Your task to perform on an android device: Open calendar and show me the first week of next month Image 0: 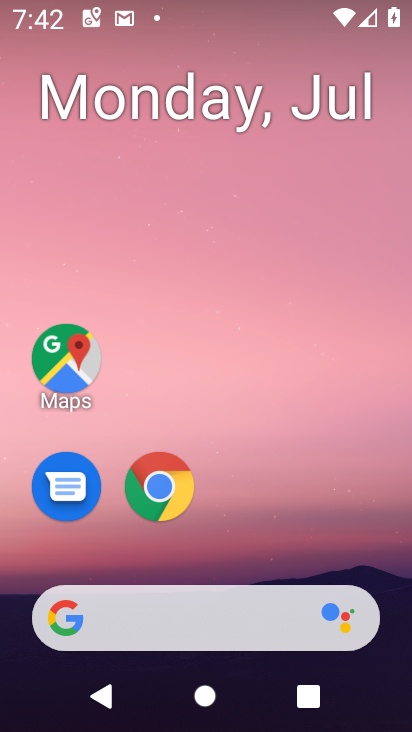
Step 0: drag from (361, 535) to (364, 127)
Your task to perform on an android device: Open calendar and show me the first week of next month Image 1: 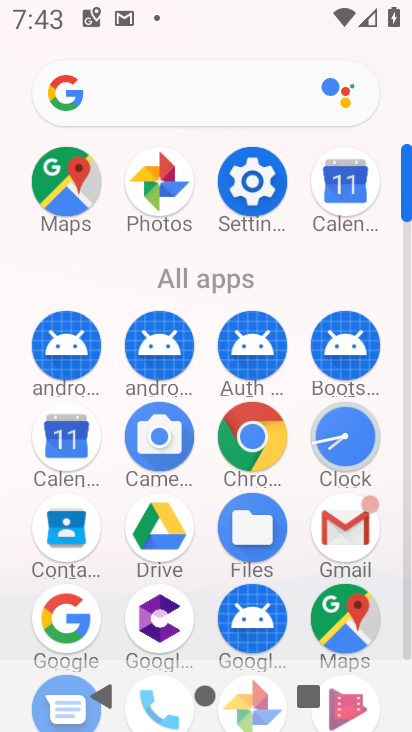
Step 1: click (363, 207)
Your task to perform on an android device: Open calendar and show me the first week of next month Image 2: 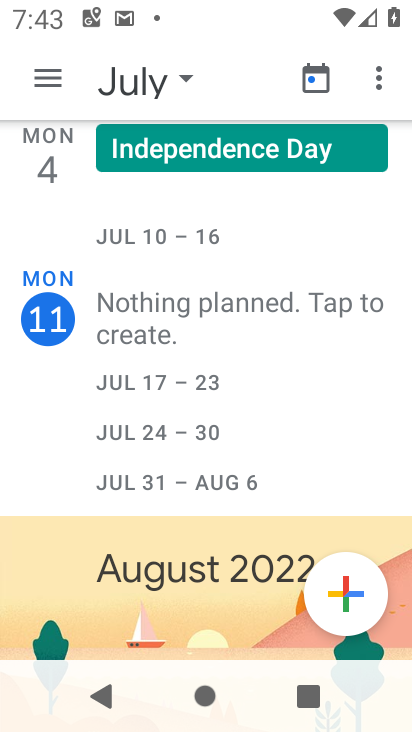
Step 2: click (180, 85)
Your task to perform on an android device: Open calendar and show me the first week of next month Image 3: 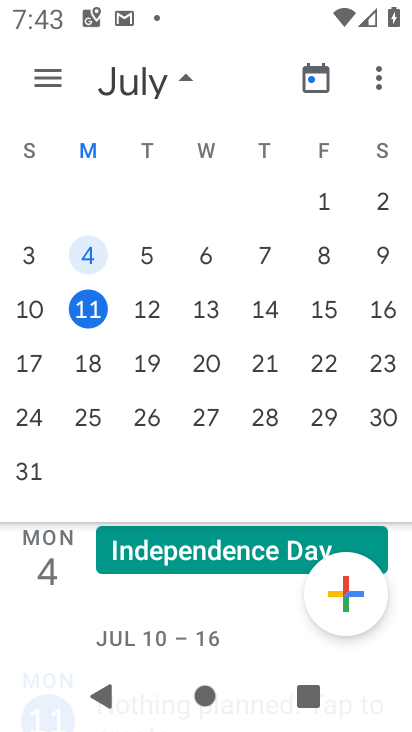
Step 3: task complete